Your task to perform on an android device: allow notifications from all sites in the chrome app Image 0: 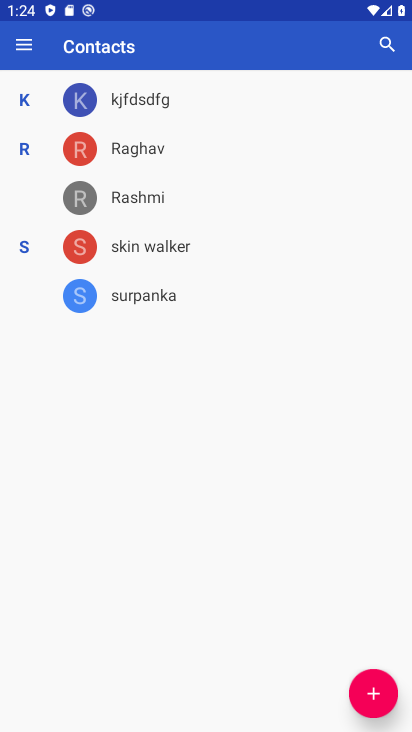
Step 0: press home button
Your task to perform on an android device: allow notifications from all sites in the chrome app Image 1: 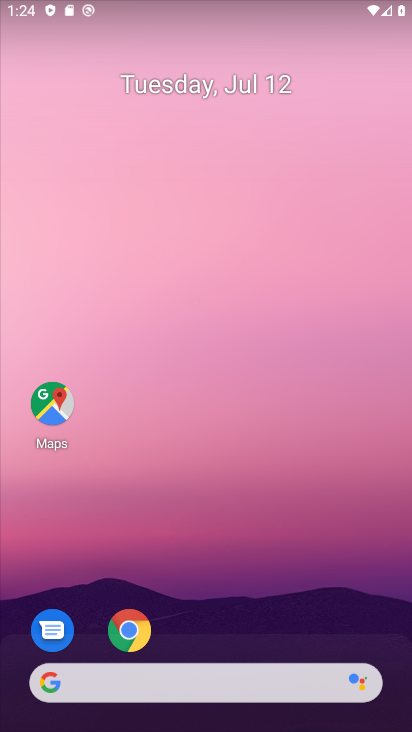
Step 1: click (133, 615)
Your task to perform on an android device: allow notifications from all sites in the chrome app Image 2: 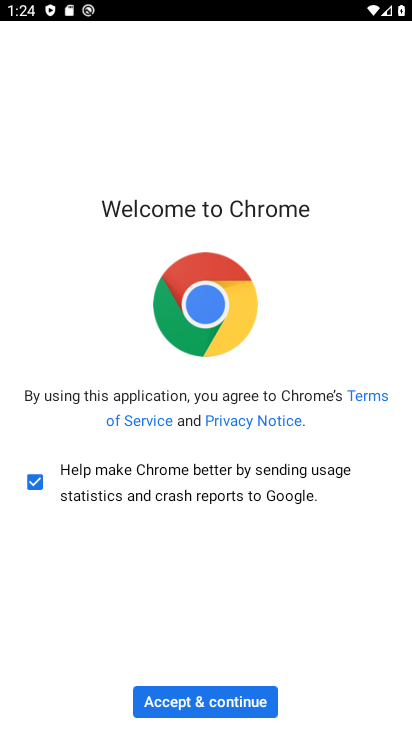
Step 2: click (250, 696)
Your task to perform on an android device: allow notifications from all sites in the chrome app Image 3: 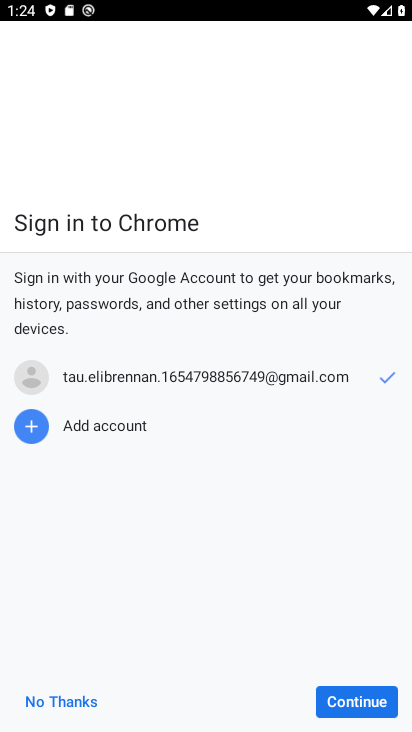
Step 3: click (366, 696)
Your task to perform on an android device: allow notifications from all sites in the chrome app Image 4: 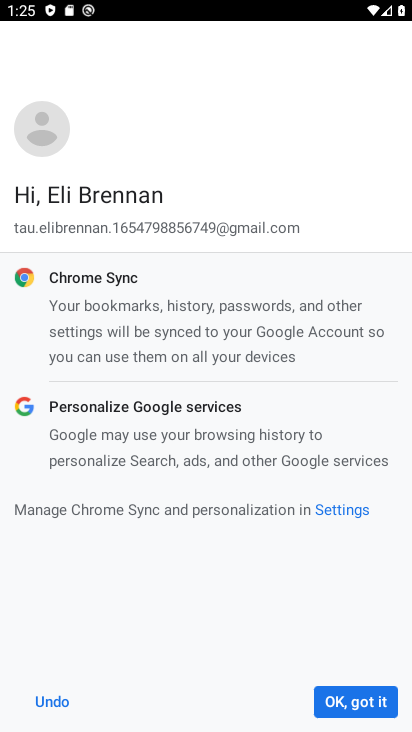
Step 4: click (366, 696)
Your task to perform on an android device: allow notifications from all sites in the chrome app Image 5: 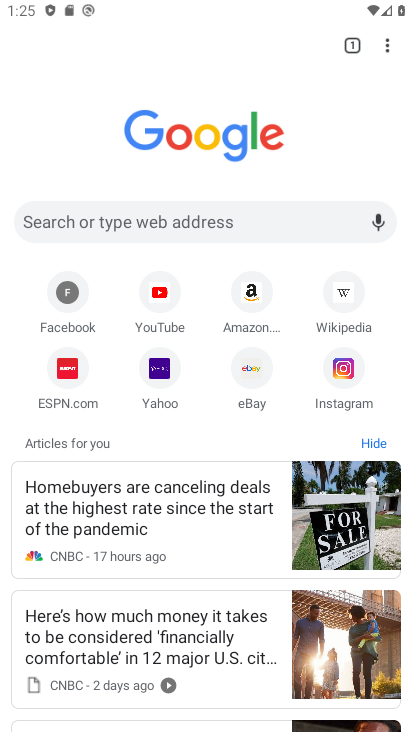
Step 5: click (392, 39)
Your task to perform on an android device: allow notifications from all sites in the chrome app Image 6: 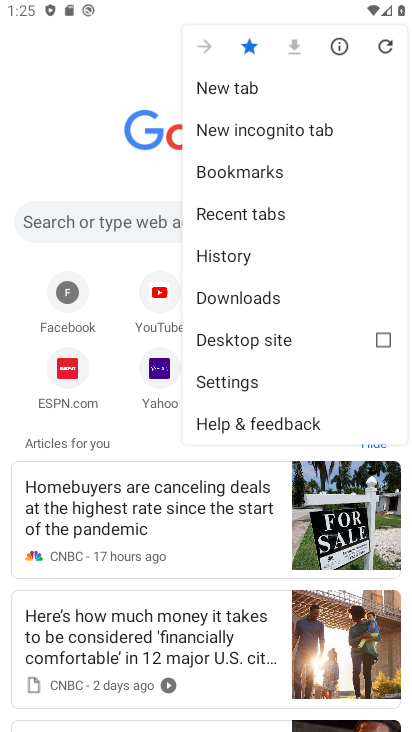
Step 6: click (227, 376)
Your task to perform on an android device: allow notifications from all sites in the chrome app Image 7: 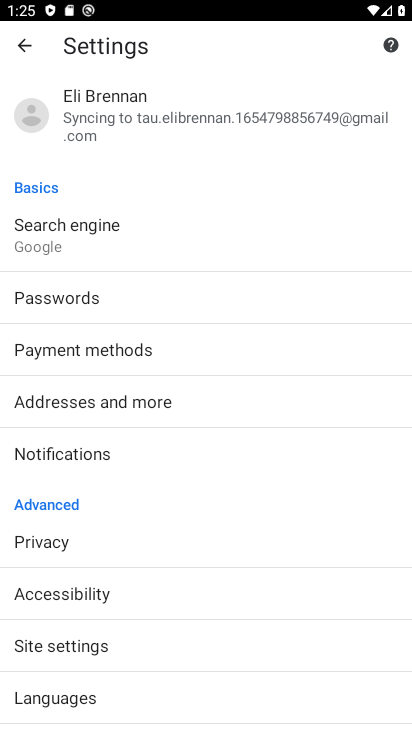
Step 7: click (49, 647)
Your task to perform on an android device: allow notifications from all sites in the chrome app Image 8: 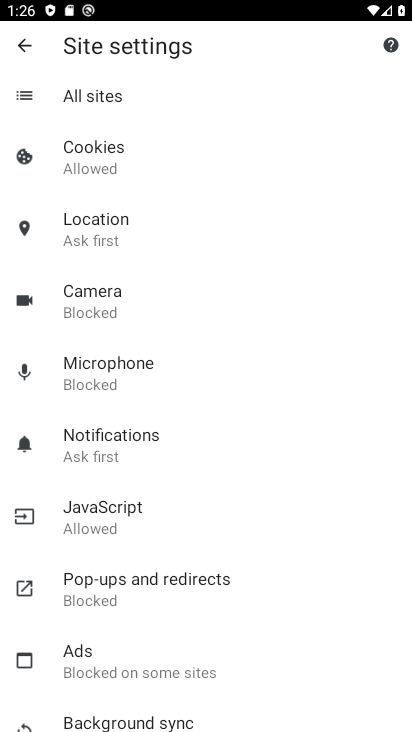
Step 8: click (114, 435)
Your task to perform on an android device: allow notifications from all sites in the chrome app Image 9: 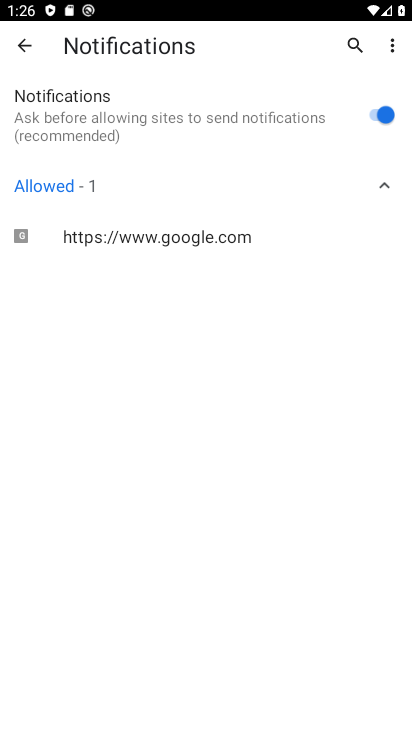
Step 9: task complete